Your task to perform on an android device: Open display settings Image 0: 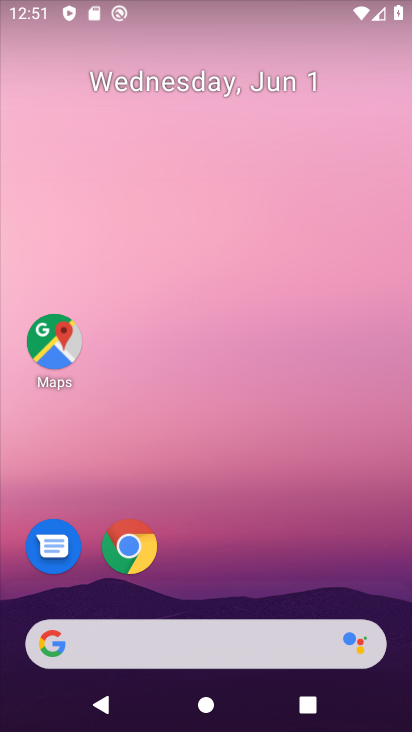
Step 0: drag from (237, 636) to (285, 2)
Your task to perform on an android device: Open display settings Image 1: 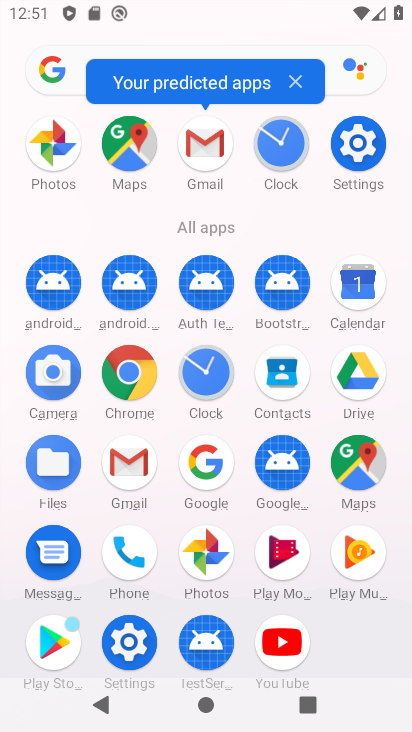
Step 1: click (136, 641)
Your task to perform on an android device: Open display settings Image 2: 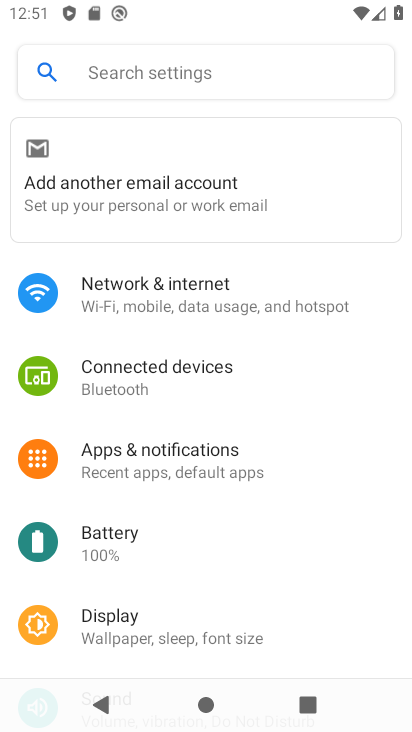
Step 2: click (136, 624)
Your task to perform on an android device: Open display settings Image 3: 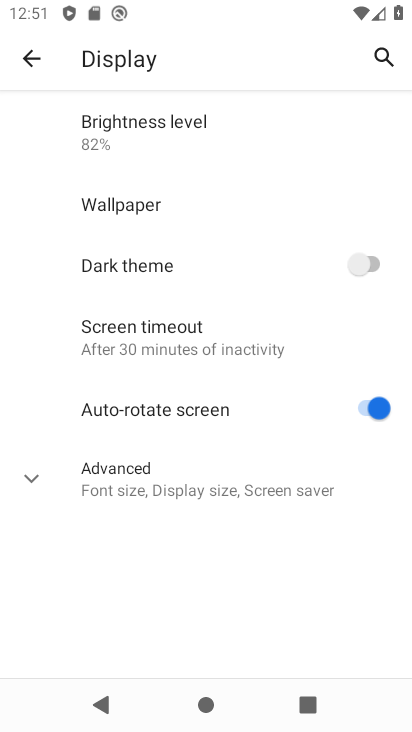
Step 3: click (138, 475)
Your task to perform on an android device: Open display settings Image 4: 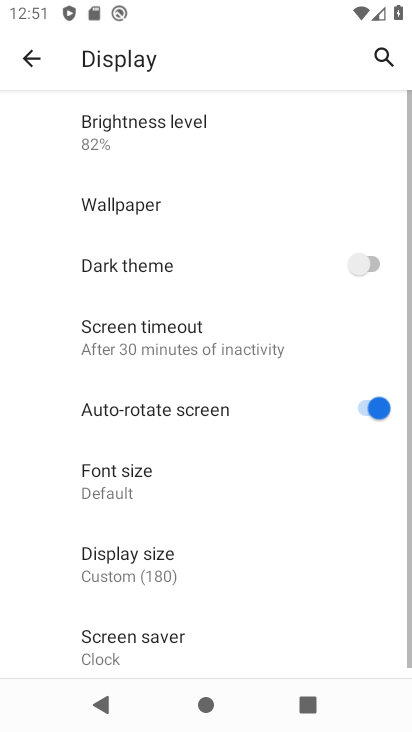
Step 4: click (174, 557)
Your task to perform on an android device: Open display settings Image 5: 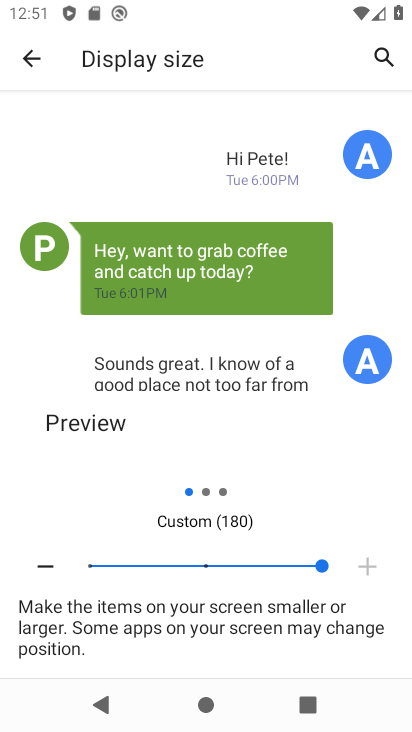
Step 5: task complete